Your task to perform on an android device: Go to internet settings Image 0: 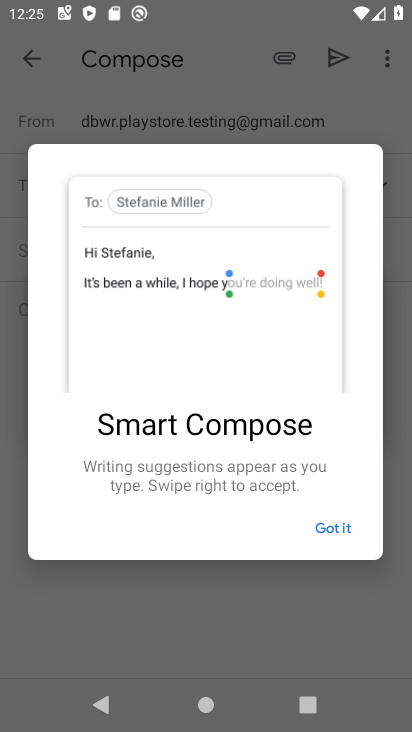
Step 0: press home button
Your task to perform on an android device: Go to internet settings Image 1: 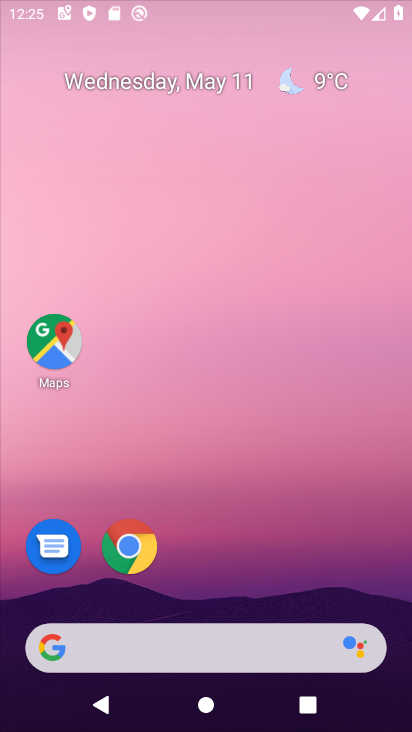
Step 1: drag from (235, 533) to (240, 40)
Your task to perform on an android device: Go to internet settings Image 2: 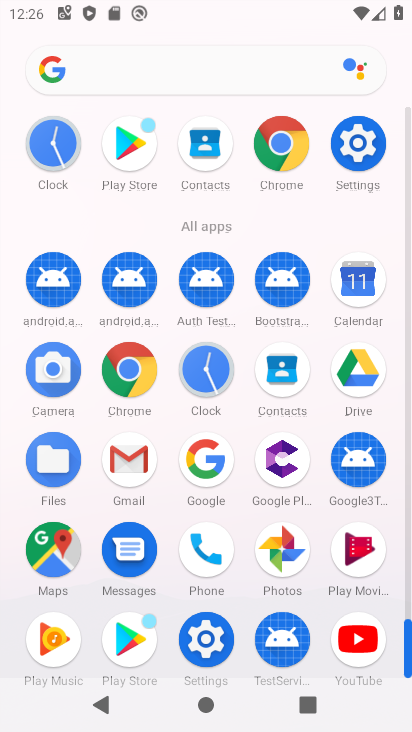
Step 2: click (351, 145)
Your task to perform on an android device: Go to internet settings Image 3: 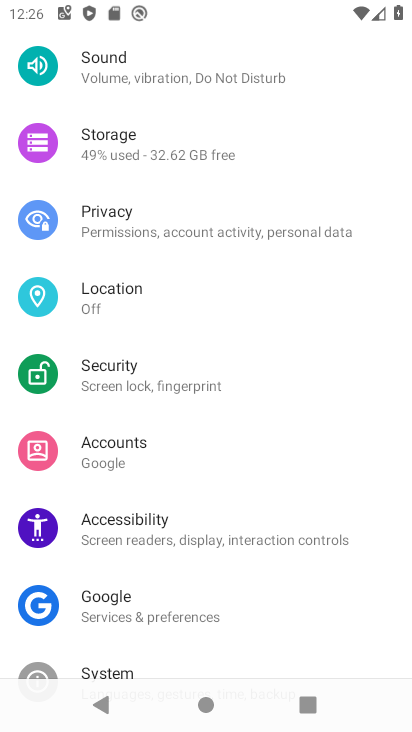
Step 3: drag from (212, 169) to (393, 727)
Your task to perform on an android device: Go to internet settings Image 4: 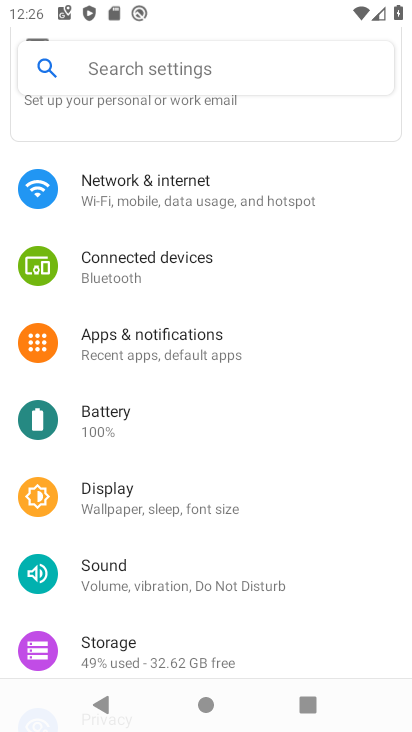
Step 4: click (211, 198)
Your task to perform on an android device: Go to internet settings Image 5: 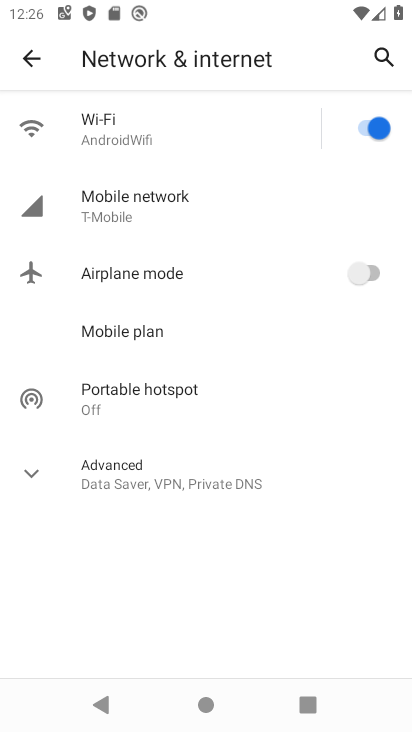
Step 5: task complete